Your task to perform on an android device: What's the news in Taiwan? Image 0: 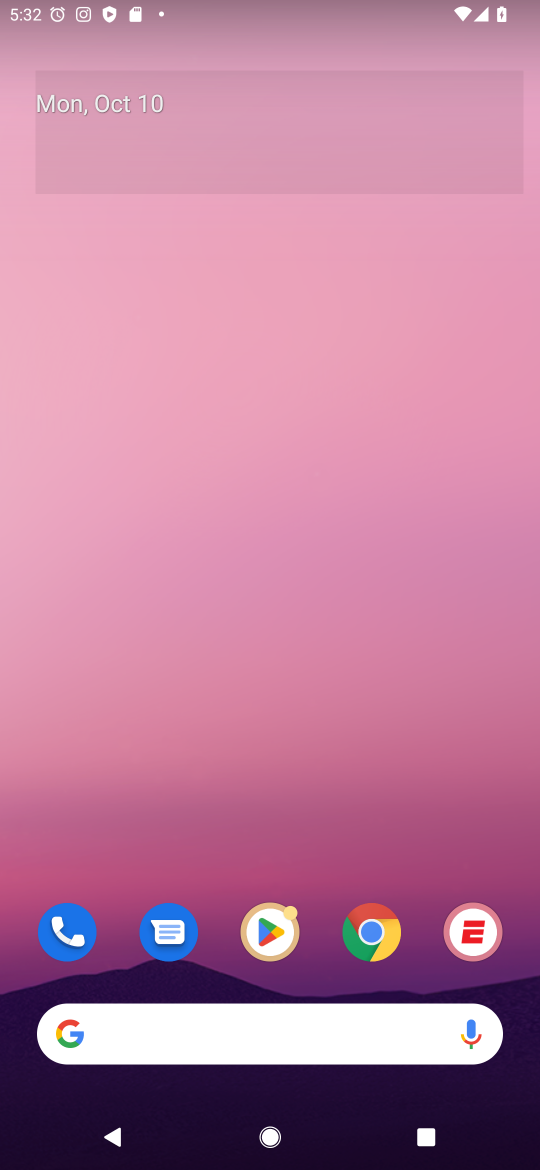
Step 0: press home button
Your task to perform on an android device: What's the news in Taiwan? Image 1: 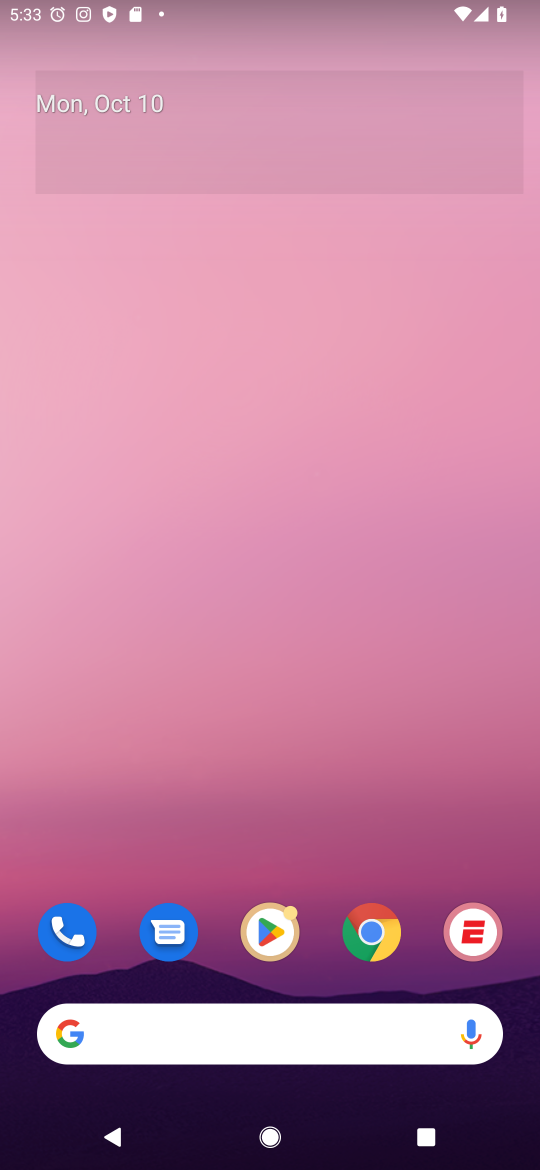
Step 1: click (294, 1032)
Your task to perform on an android device: What's the news in Taiwan? Image 2: 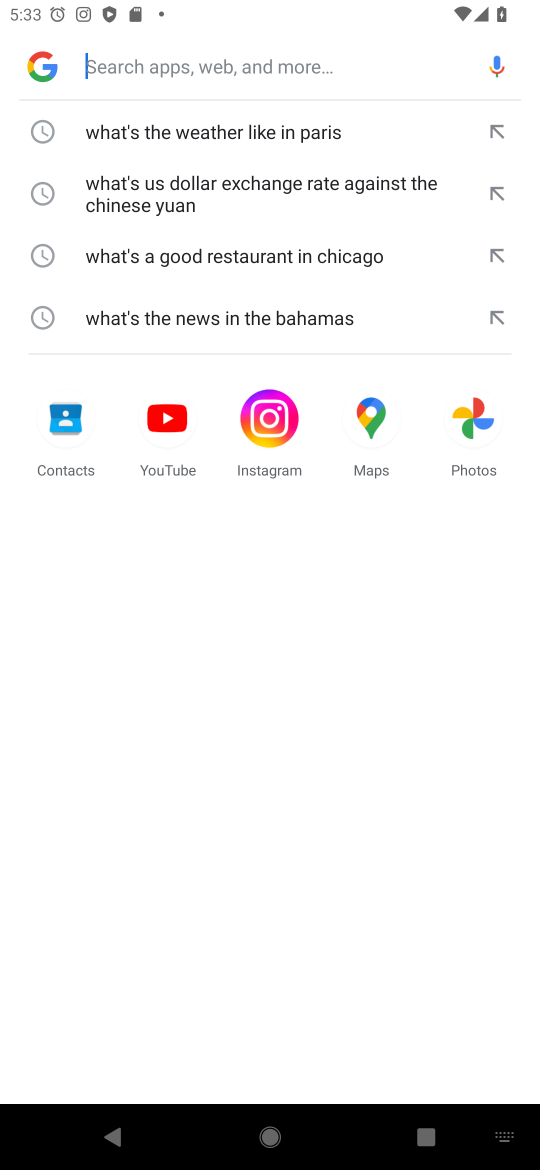
Step 2: press enter
Your task to perform on an android device: What's the news in Taiwan? Image 3: 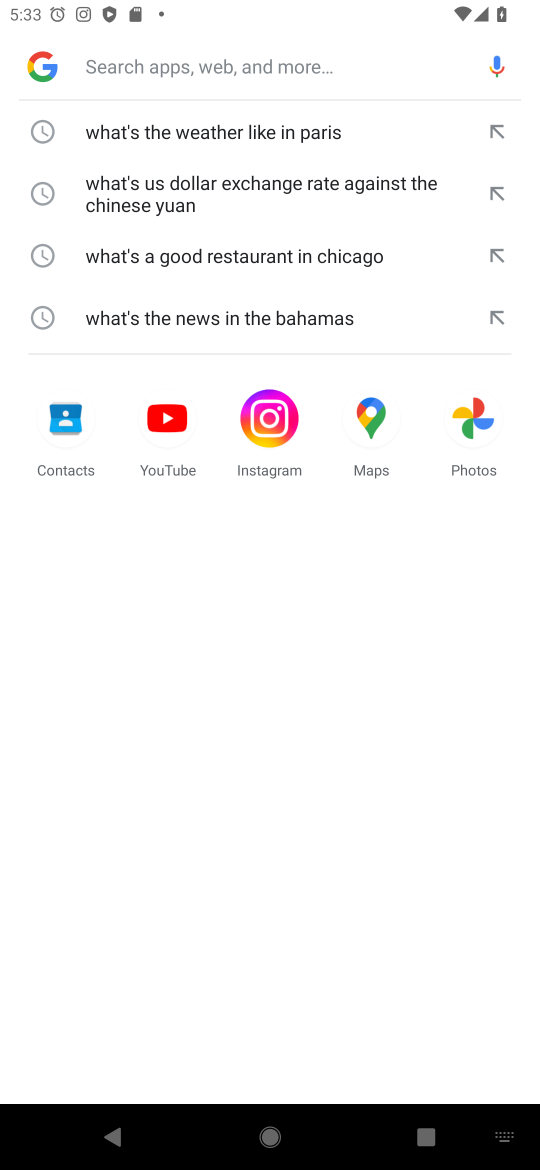
Step 3: type "What's the news in Taiwan"
Your task to perform on an android device: What's the news in Taiwan? Image 4: 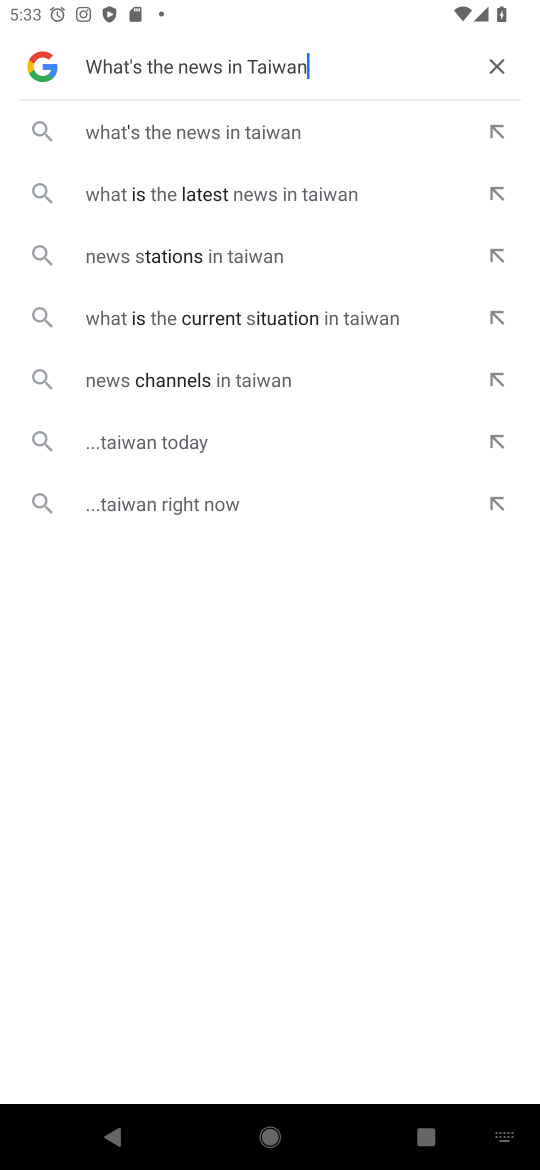
Step 4: press enter
Your task to perform on an android device: What's the news in Taiwan? Image 5: 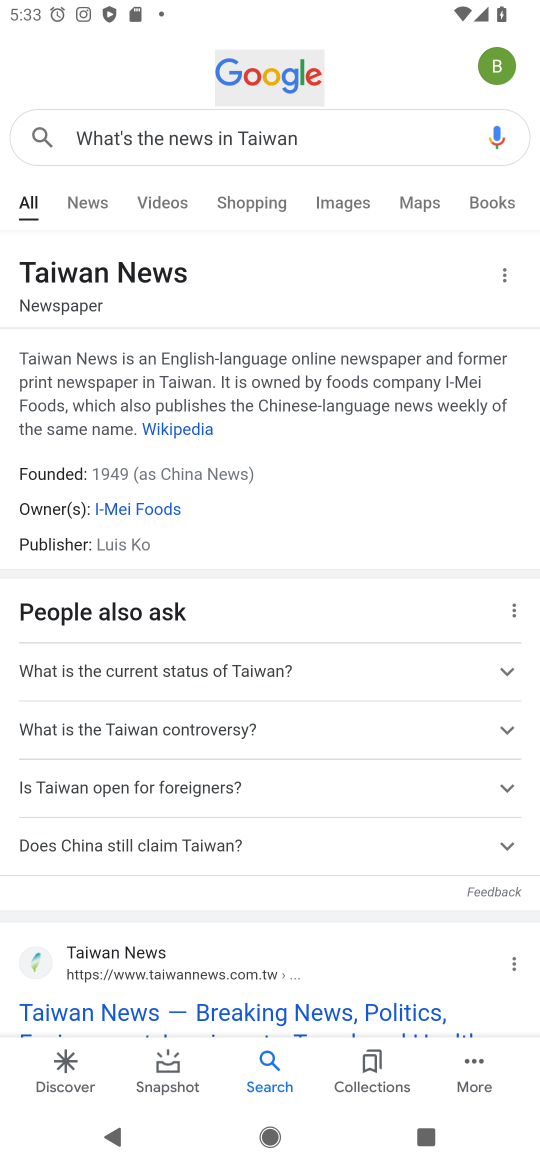
Step 5: drag from (348, 770) to (348, 500)
Your task to perform on an android device: What's the news in Taiwan? Image 6: 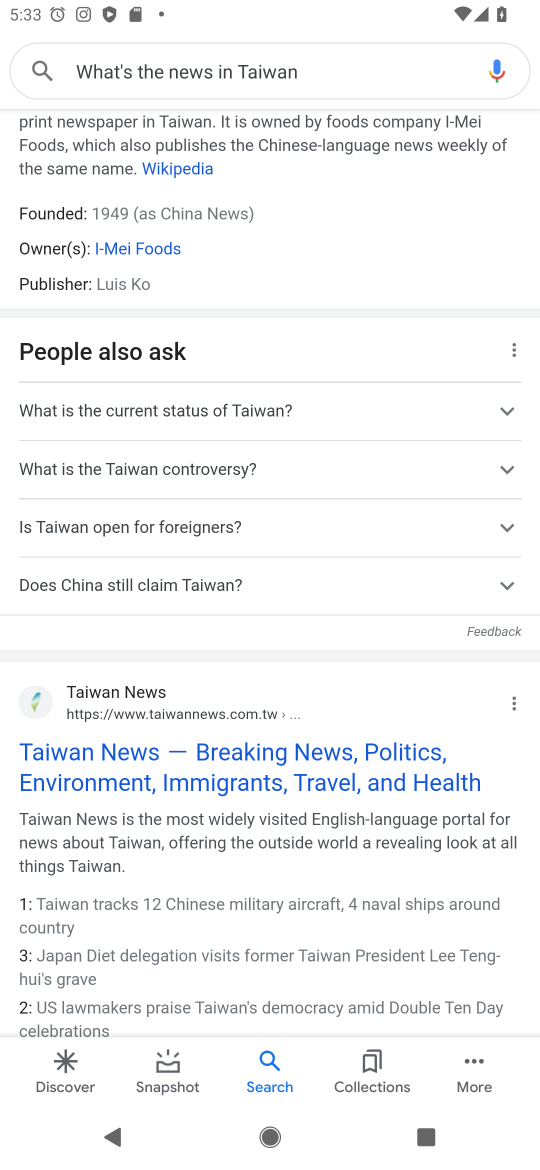
Step 6: click (290, 760)
Your task to perform on an android device: What's the news in Taiwan? Image 7: 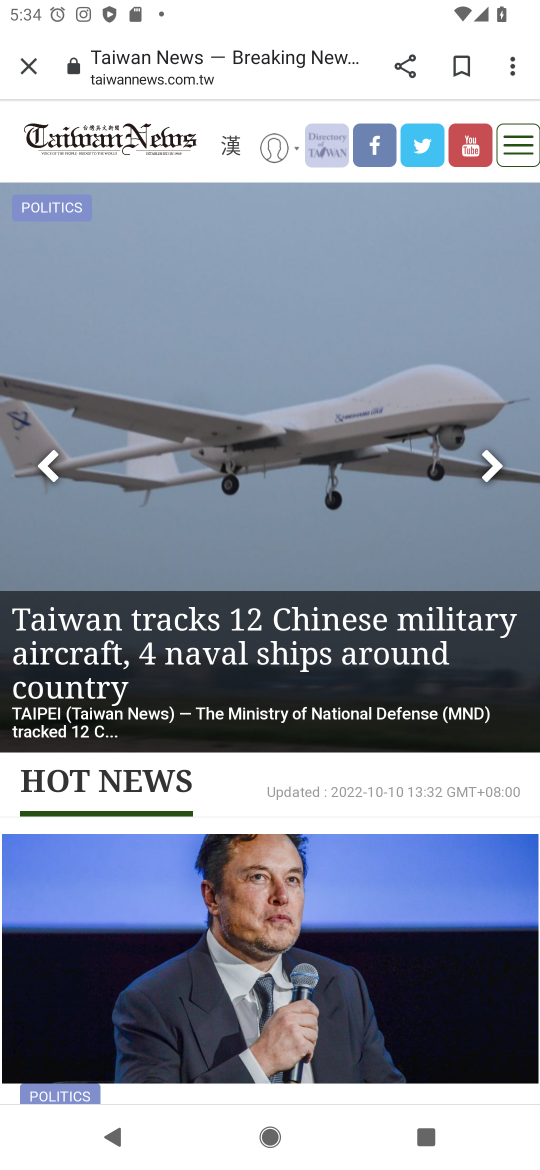
Step 7: task complete